Your task to perform on an android device: Set an alarm for 7pm Image 0: 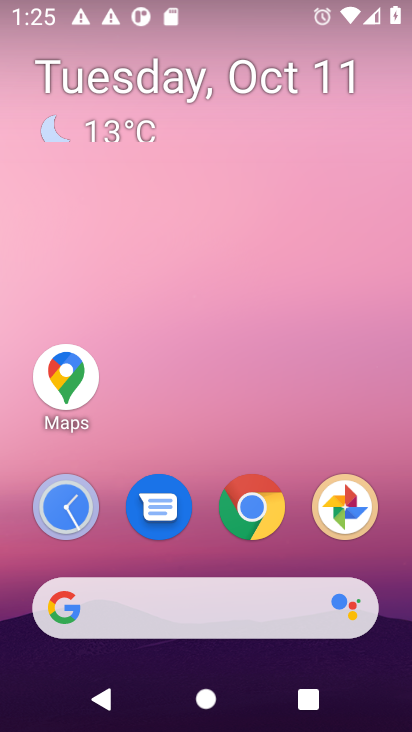
Step 0: drag from (218, 599) to (217, 162)
Your task to perform on an android device: Set an alarm for 7pm Image 1: 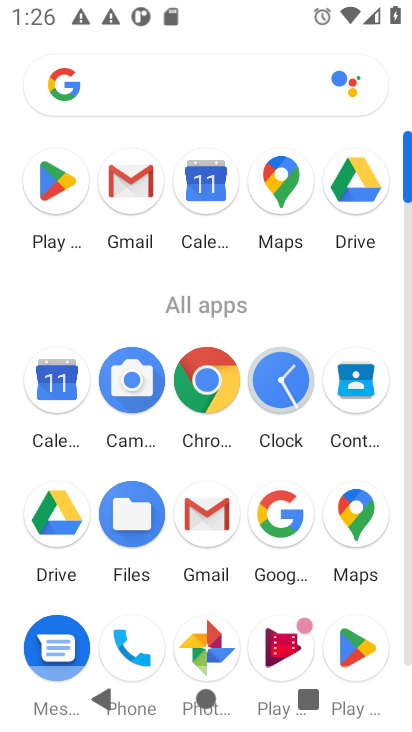
Step 1: click (267, 394)
Your task to perform on an android device: Set an alarm for 7pm Image 2: 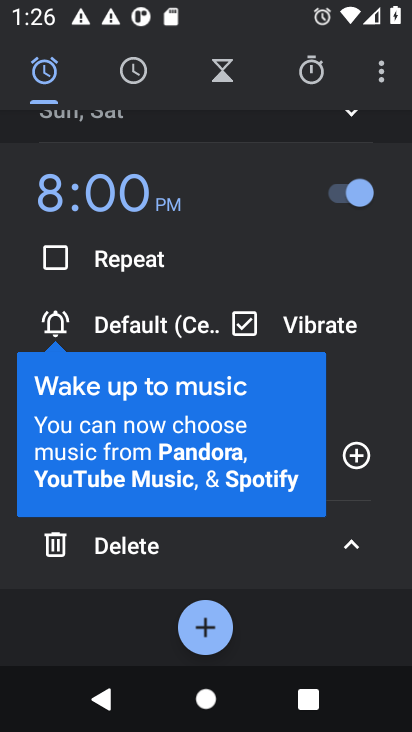
Step 2: click (196, 626)
Your task to perform on an android device: Set an alarm for 7pm Image 3: 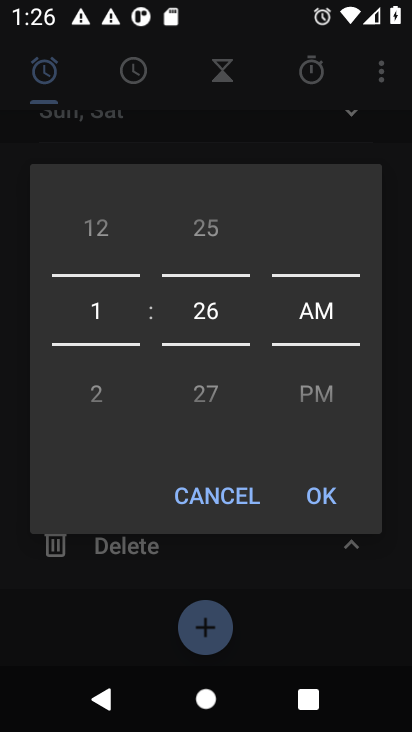
Step 3: drag from (95, 304) to (115, 161)
Your task to perform on an android device: Set an alarm for 7pm Image 4: 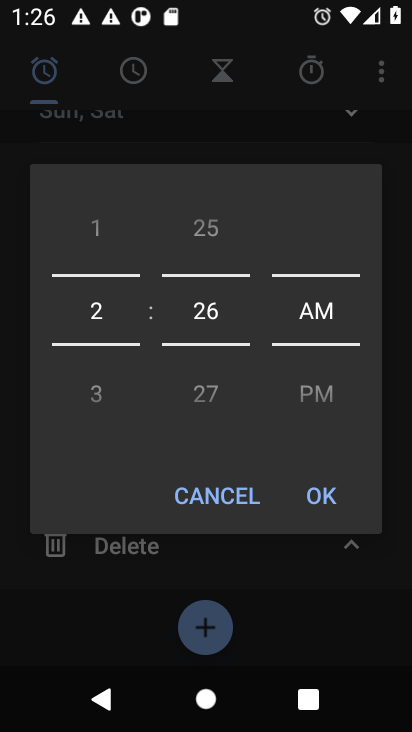
Step 4: drag from (97, 326) to (117, 156)
Your task to perform on an android device: Set an alarm for 7pm Image 5: 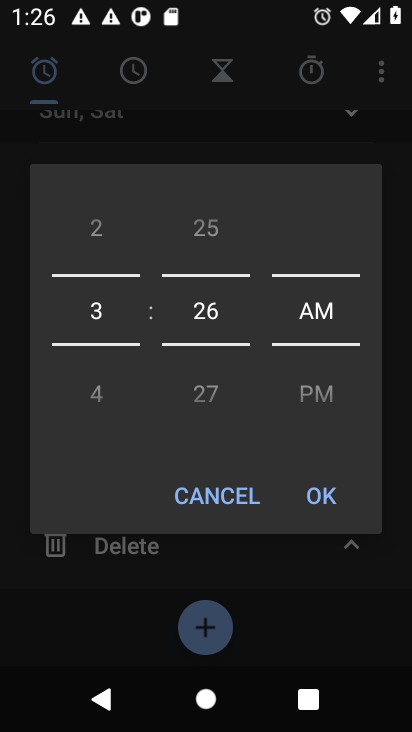
Step 5: drag from (119, 331) to (134, 115)
Your task to perform on an android device: Set an alarm for 7pm Image 6: 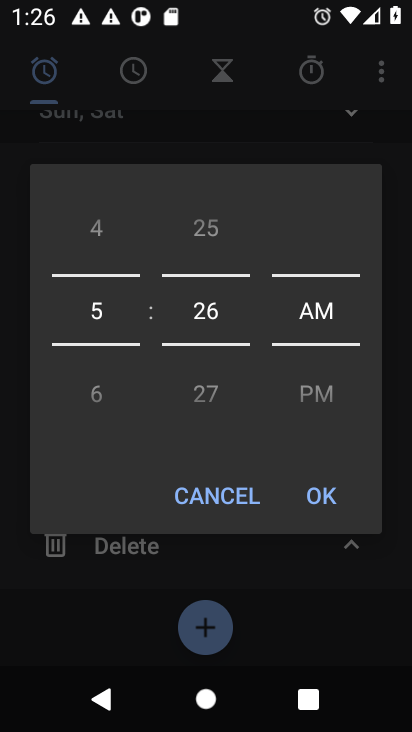
Step 6: drag from (114, 314) to (127, 128)
Your task to perform on an android device: Set an alarm for 7pm Image 7: 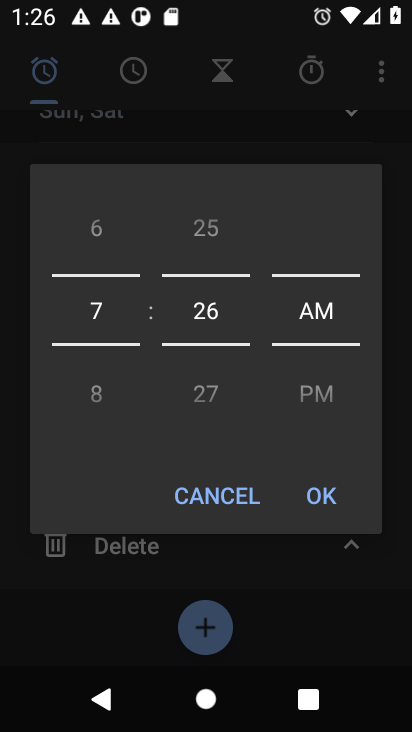
Step 7: drag from (210, 300) to (212, 430)
Your task to perform on an android device: Set an alarm for 7pm Image 8: 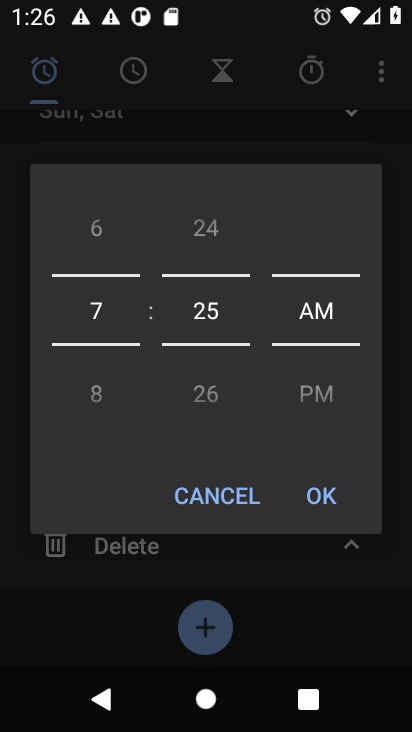
Step 8: drag from (213, 344) to (224, 456)
Your task to perform on an android device: Set an alarm for 7pm Image 9: 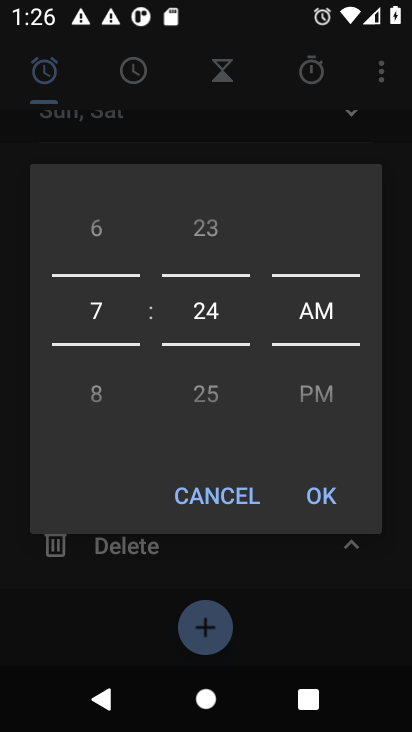
Step 9: drag from (226, 340) to (232, 524)
Your task to perform on an android device: Set an alarm for 7pm Image 10: 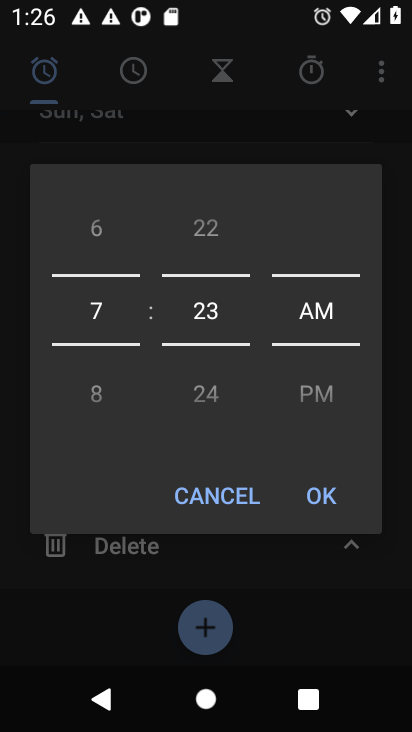
Step 10: drag from (220, 367) to (220, 510)
Your task to perform on an android device: Set an alarm for 7pm Image 11: 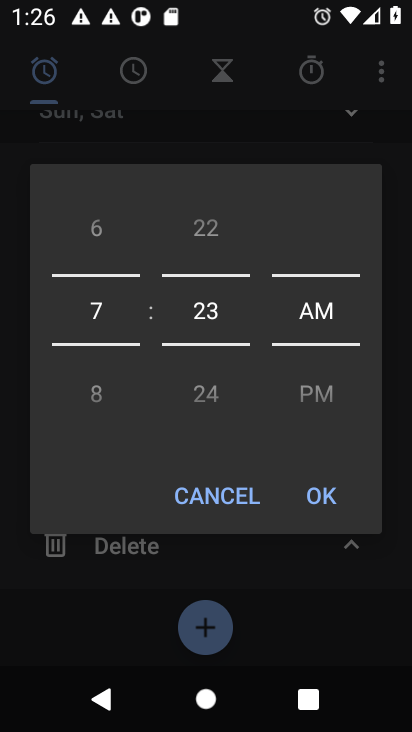
Step 11: drag from (218, 306) to (218, 473)
Your task to perform on an android device: Set an alarm for 7pm Image 12: 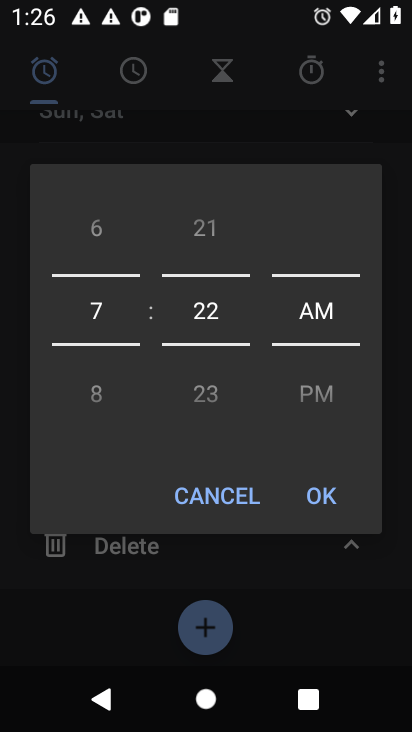
Step 12: drag from (206, 304) to (206, 475)
Your task to perform on an android device: Set an alarm for 7pm Image 13: 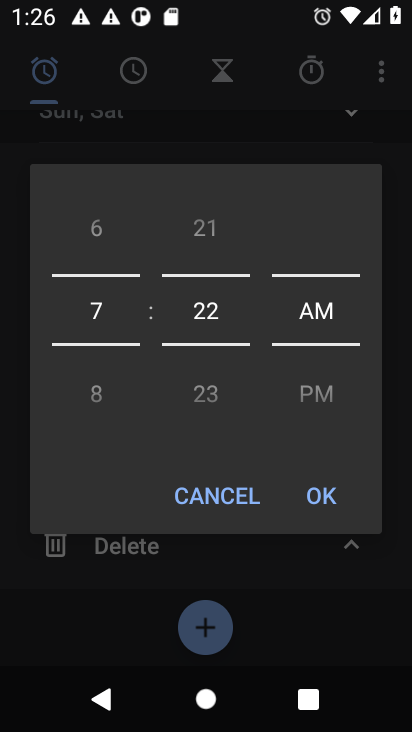
Step 13: drag from (224, 292) to (208, 479)
Your task to perform on an android device: Set an alarm for 7pm Image 14: 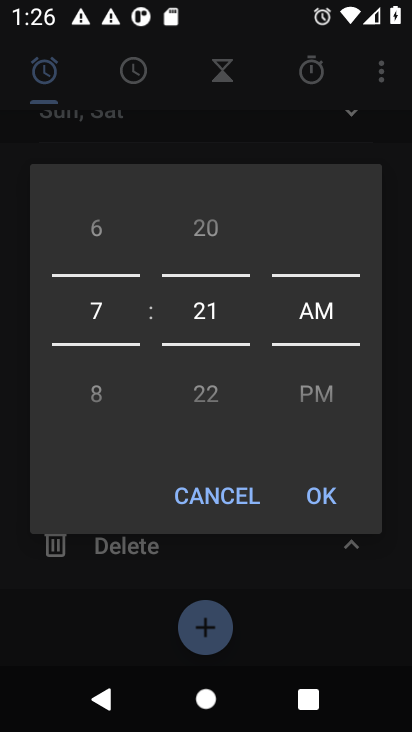
Step 14: drag from (224, 283) to (205, 483)
Your task to perform on an android device: Set an alarm for 7pm Image 15: 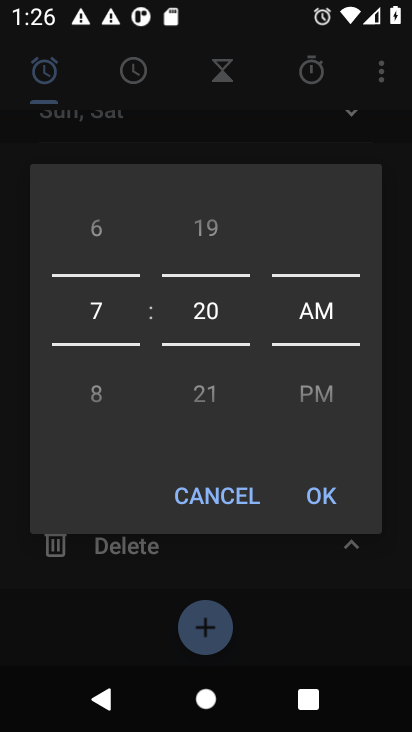
Step 15: drag from (242, 310) to (202, 540)
Your task to perform on an android device: Set an alarm for 7pm Image 16: 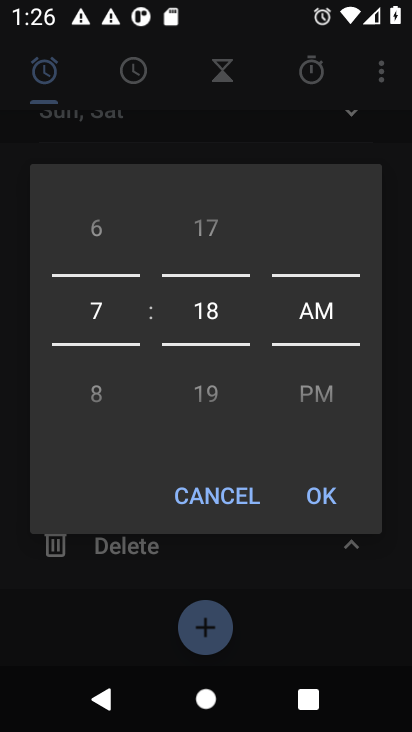
Step 16: drag from (197, 306) to (197, 531)
Your task to perform on an android device: Set an alarm for 7pm Image 17: 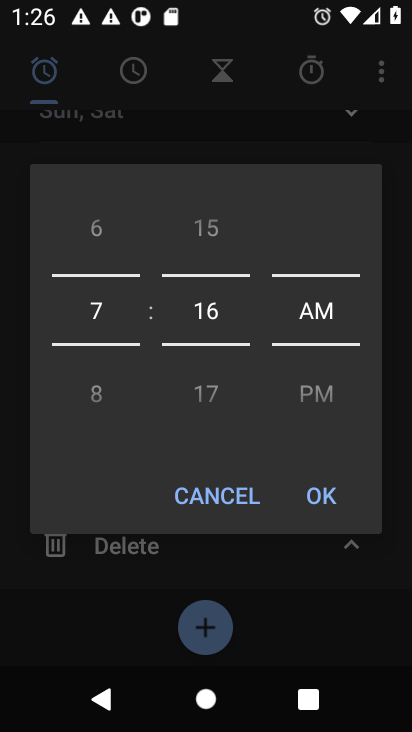
Step 17: drag from (210, 305) to (197, 478)
Your task to perform on an android device: Set an alarm for 7pm Image 18: 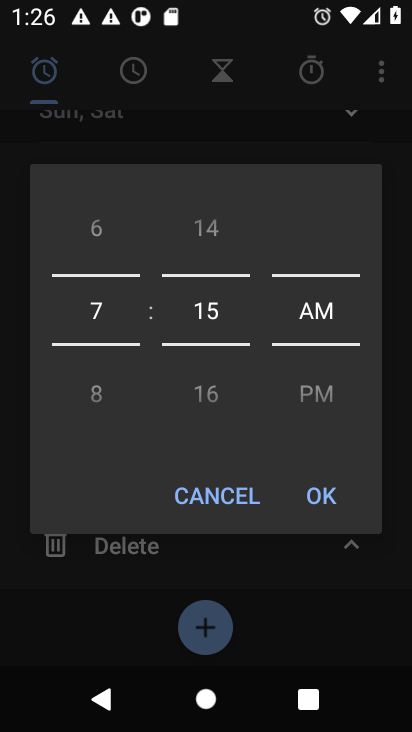
Step 18: drag from (209, 286) to (200, 517)
Your task to perform on an android device: Set an alarm for 7pm Image 19: 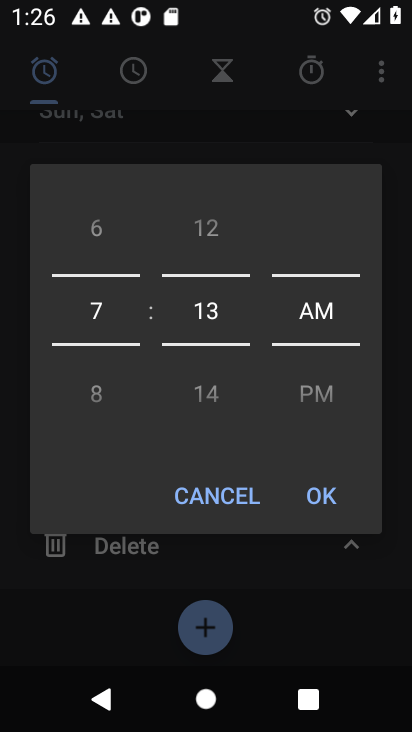
Step 19: drag from (223, 305) to (193, 504)
Your task to perform on an android device: Set an alarm for 7pm Image 20: 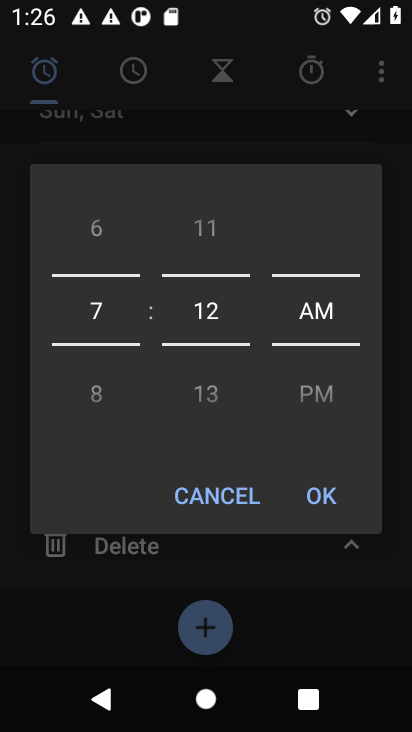
Step 20: drag from (214, 299) to (141, 573)
Your task to perform on an android device: Set an alarm for 7pm Image 21: 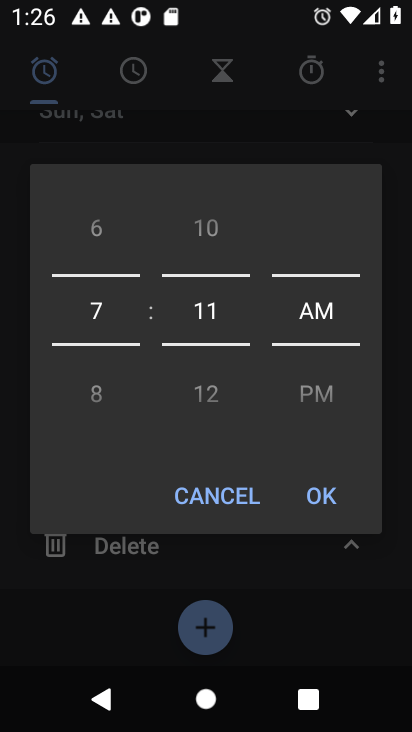
Step 21: drag from (195, 306) to (180, 605)
Your task to perform on an android device: Set an alarm for 7pm Image 22: 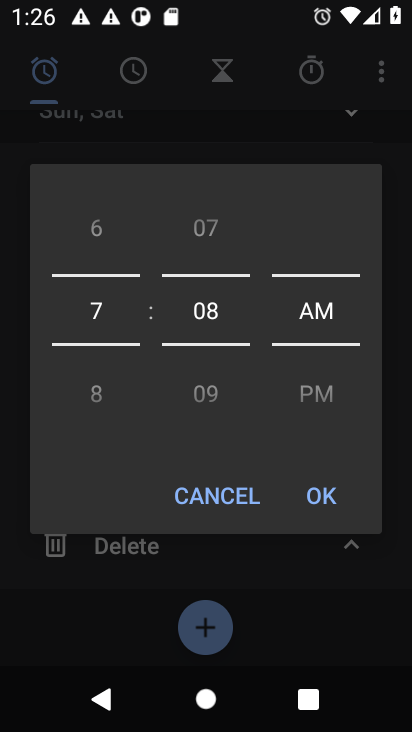
Step 22: drag from (222, 312) to (165, 661)
Your task to perform on an android device: Set an alarm for 7pm Image 23: 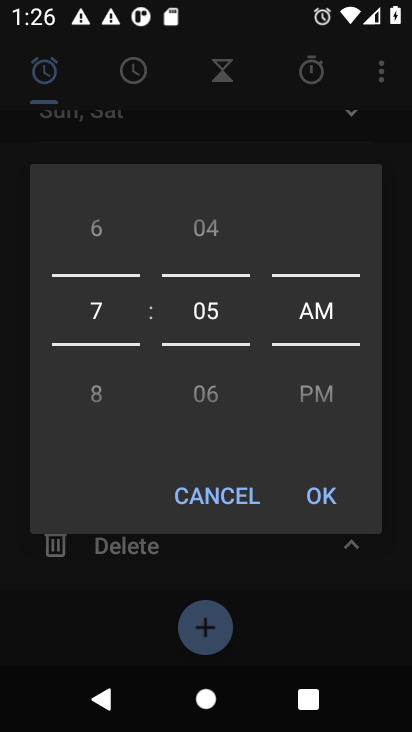
Step 23: drag from (188, 295) to (192, 540)
Your task to perform on an android device: Set an alarm for 7pm Image 24: 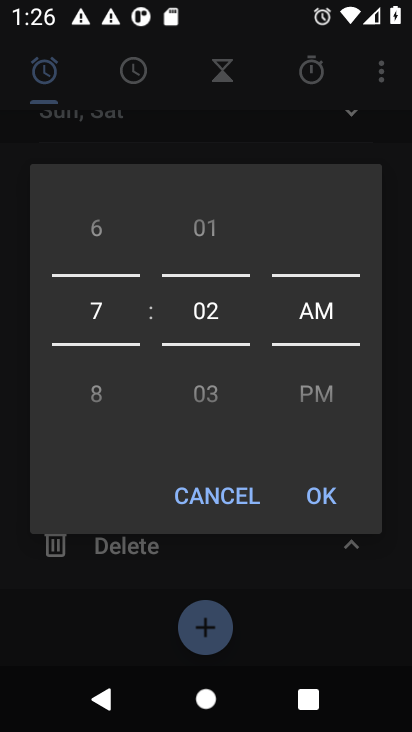
Step 24: drag from (217, 308) to (207, 600)
Your task to perform on an android device: Set an alarm for 7pm Image 25: 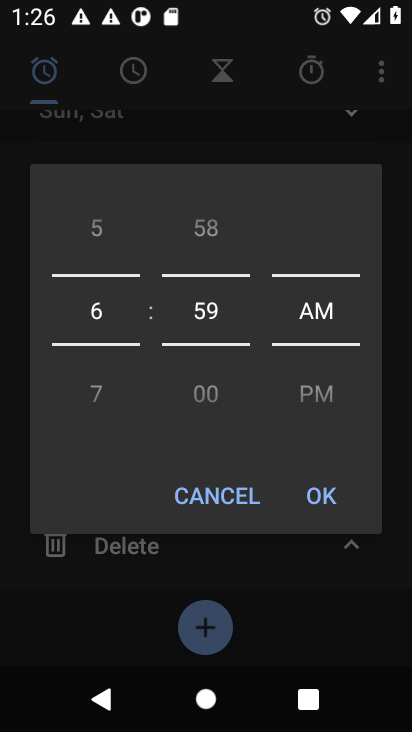
Step 25: drag from (204, 350) to (207, 219)
Your task to perform on an android device: Set an alarm for 7pm Image 26: 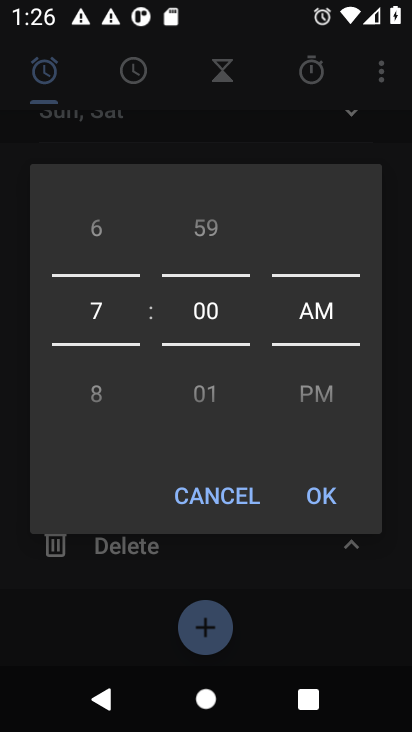
Step 26: drag from (331, 331) to (331, 198)
Your task to perform on an android device: Set an alarm for 7pm Image 27: 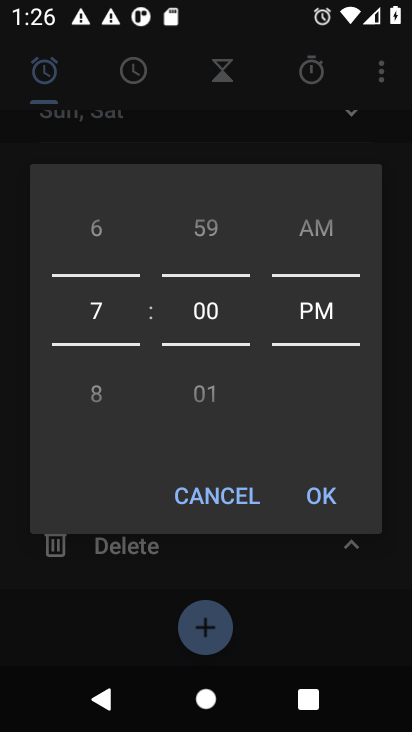
Step 27: click (323, 495)
Your task to perform on an android device: Set an alarm for 7pm Image 28: 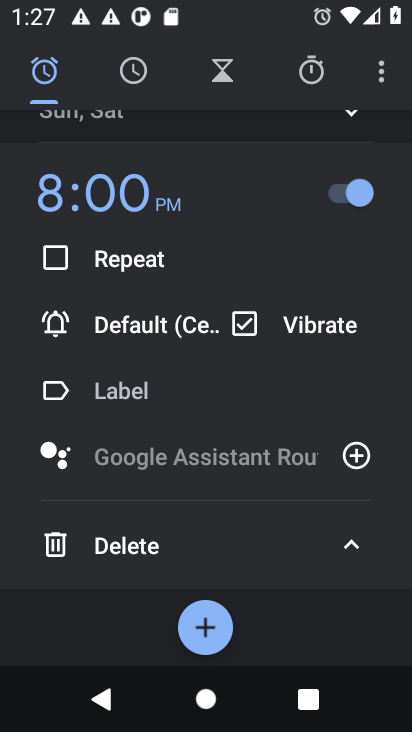
Step 28: task complete